Your task to perform on an android device: turn on notifications settings in the gmail app Image 0: 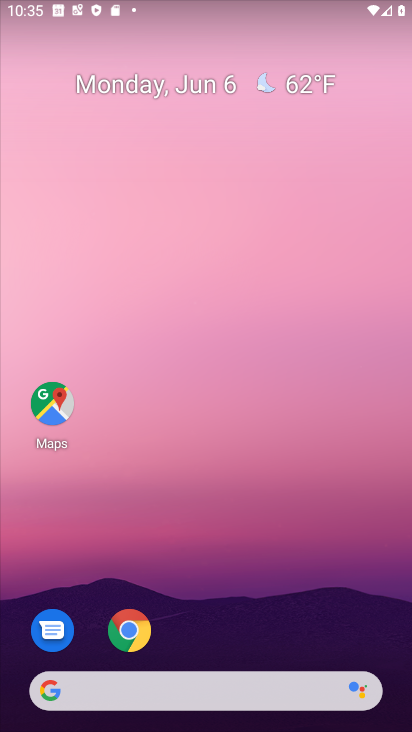
Step 0: drag from (364, 613) to (346, 145)
Your task to perform on an android device: turn on notifications settings in the gmail app Image 1: 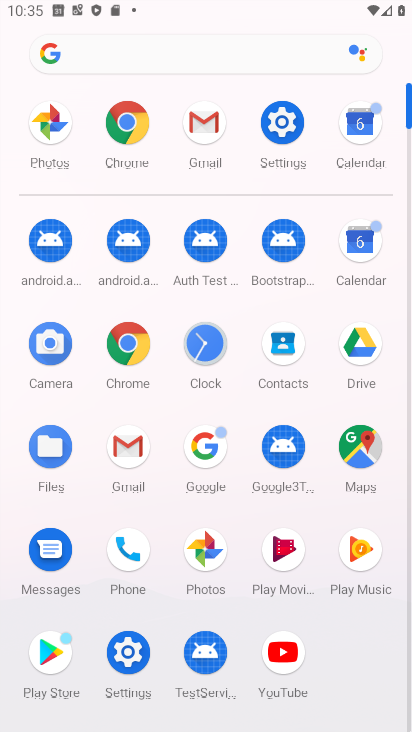
Step 1: click (136, 463)
Your task to perform on an android device: turn on notifications settings in the gmail app Image 2: 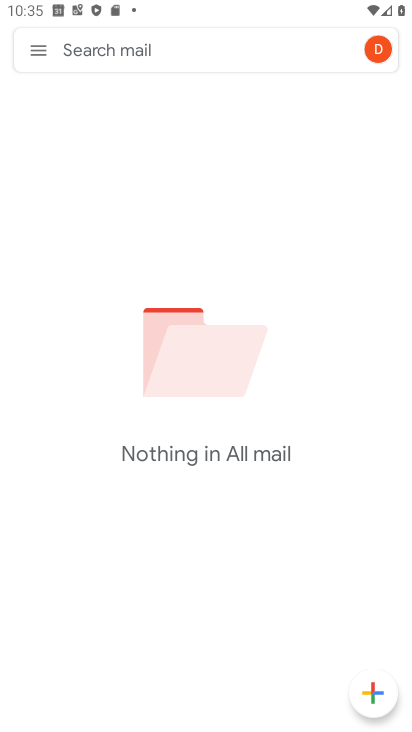
Step 2: click (42, 54)
Your task to perform on an android device: turn on notifications settings in the gmail app Image 3: 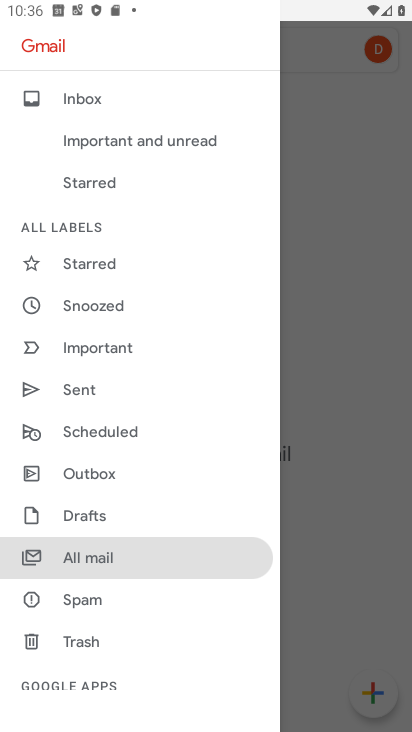
Step 3: drag from (169, 648) to (186, 321)
Your task to perform on an android device: turn on notifications settings in the gmail app Image 4: 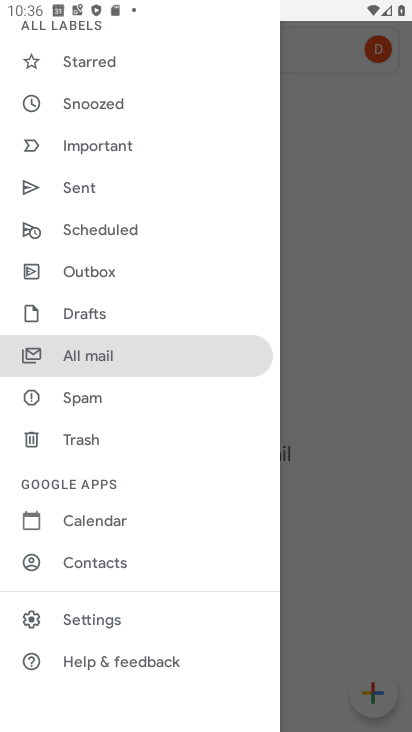
Step 4: click (119, 625)
Your task to perform on an android device: turn on notifications settings in the gmail app Image 5: 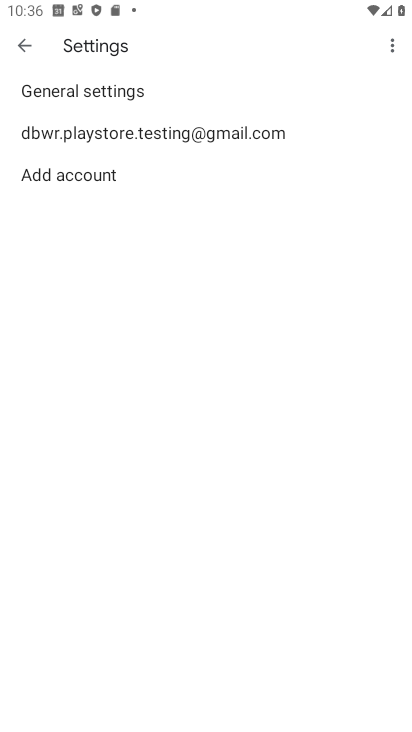
Step 5: click (228, 134)
Your task to perform on an android device: turn on notifications settings in the gmail app Image 6: 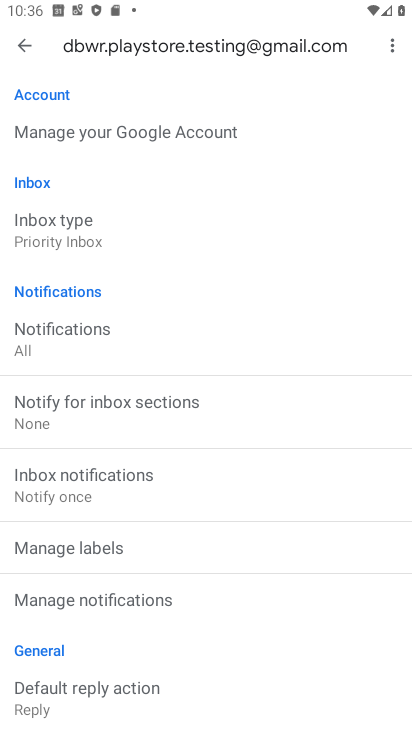
Step 6: drag from (319, 636) to (322, 311)
Your task to perform on an android device: turn on notifications settings in the gmail app Image 7: 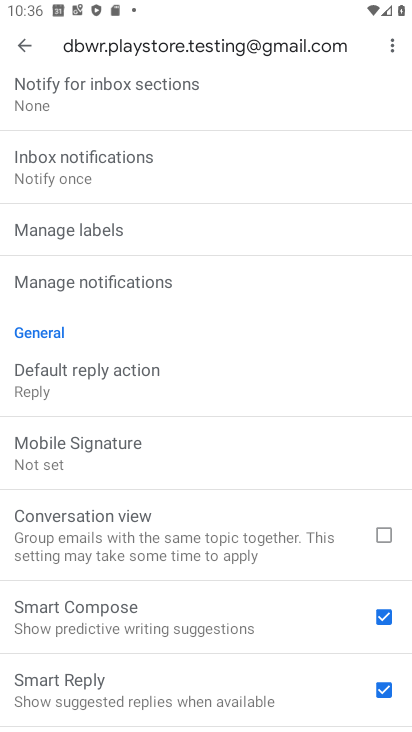
Step 7: drag from (164, 125) to (194, 408)
Your task to perform on an android device: turn on notifications settings in the gmail app Image 8: 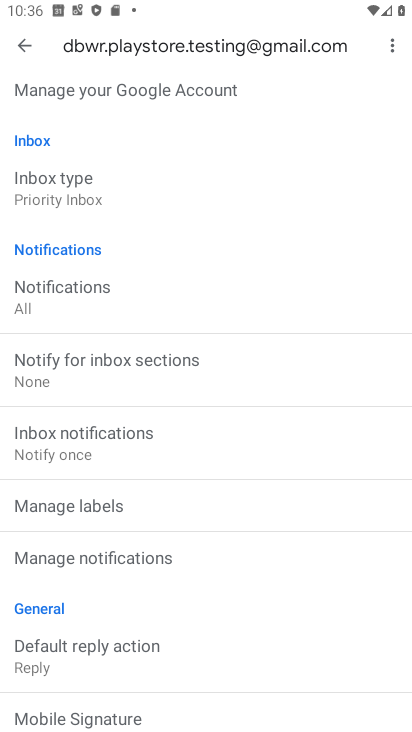
Step 8: click (162, 312)
Your task to perform on an android device: turn on notifications settings in the gmail app Image 9: 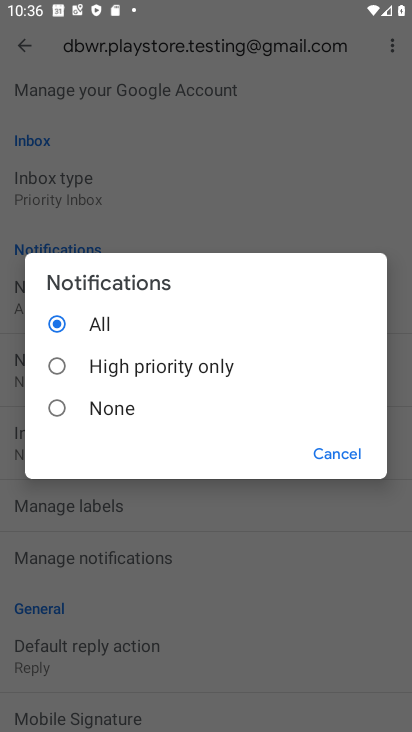
Step 9: task complete